Your task to perform on an android device: Turn on the flashlight Image 0: 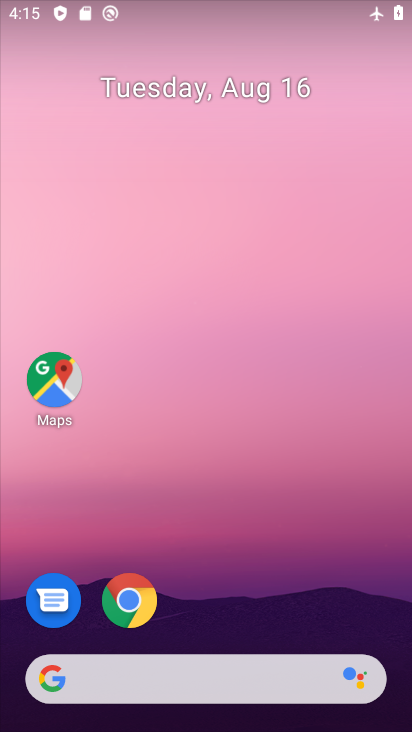
Step 0: drag from (220, 552) to (223, 27)
Your task to perform on an android device: Turn on the flashlight Image 1: 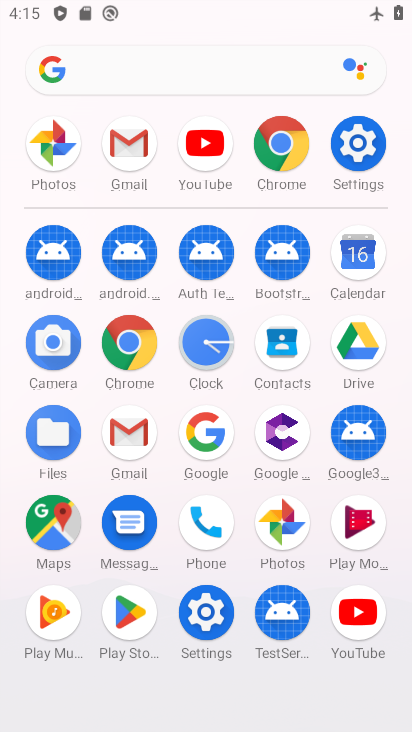
Step 1: click (365, 136)
Your task to perform on an android device: Turn on the flashlight Image 2: 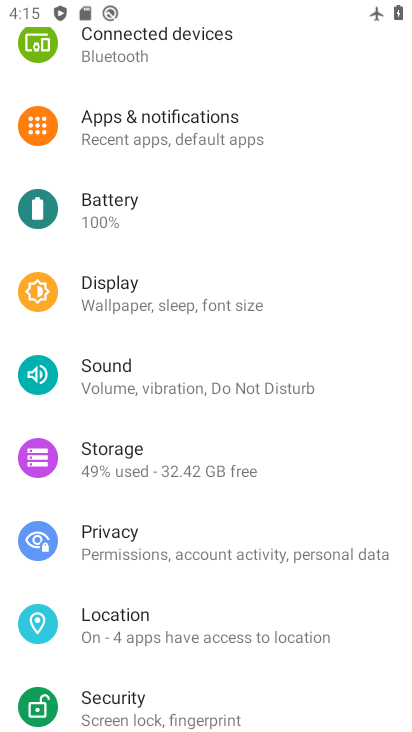
Step 2: drag from (228, 155) to (249, 687)
Your task to perform on an android device: Turn on the flashlight Image 3: 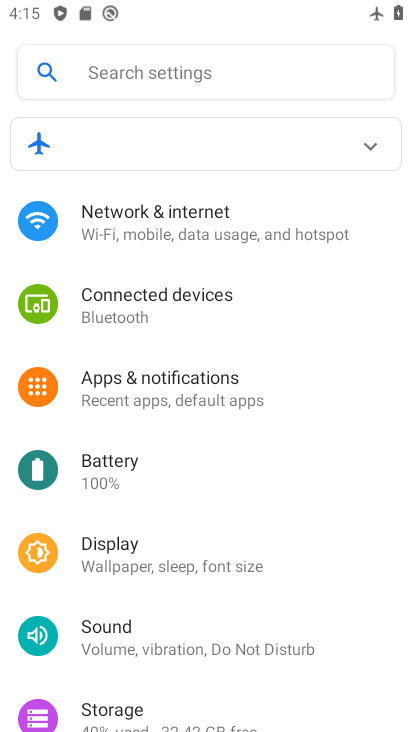
Step 3: click (204, 63)
Your task to perform on an android device: Turn on the flashlight Image 4: 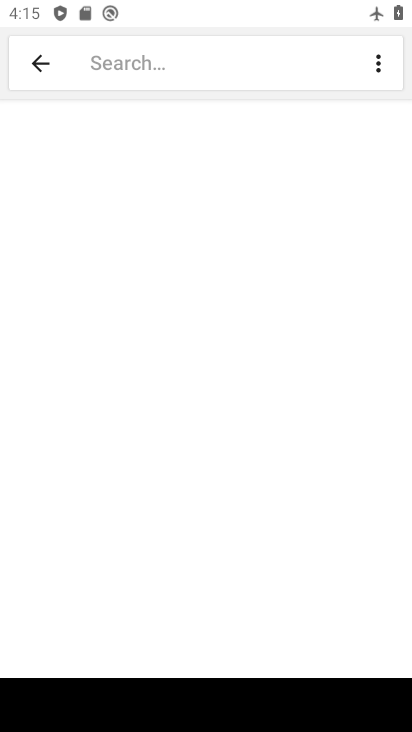
Step 4: type "flashlight"
Your task to perform on an android device: Turn on the flashlight Image 5: 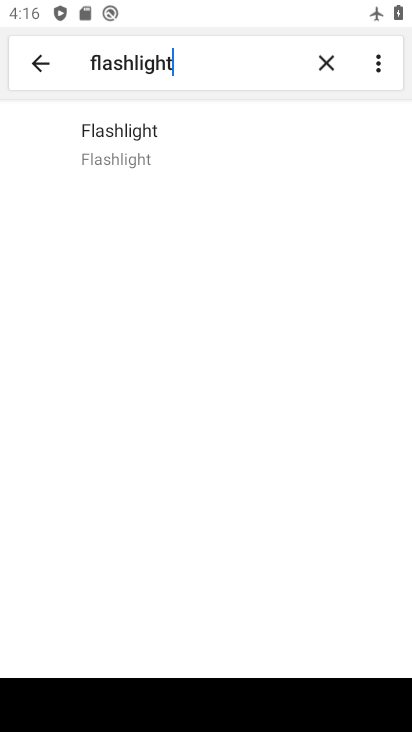
Step 5: click (181, 133)
Your task to perform on an android device: Turn on the flashlight Image 6: 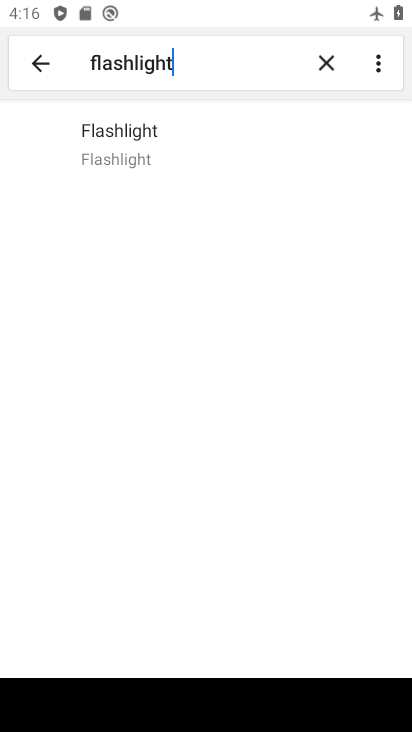
Step 6: task complete